Your task to perform on an android device: Do I have any events today? Image 0: 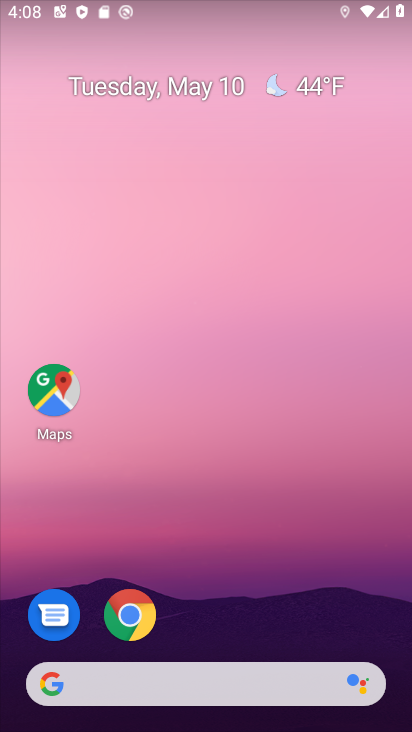
Step 0: drag from (212, 726) to (216, 182)
Your task to perform on an android device: Do I have any events today? Image 1: 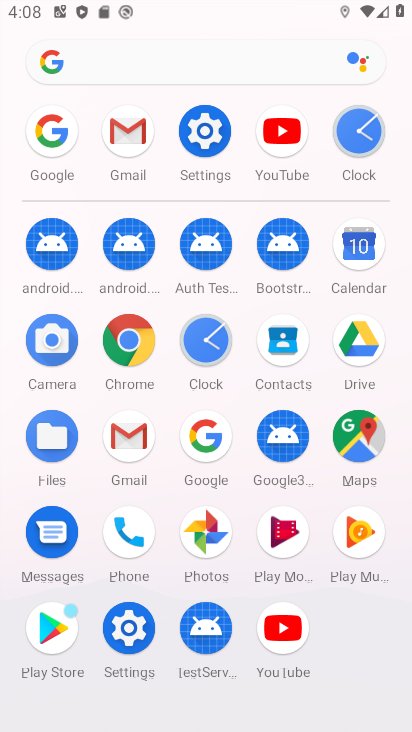
Step 1: click (362, 249)
Your task to perform on an android device: Do I have any events today? Image 2: 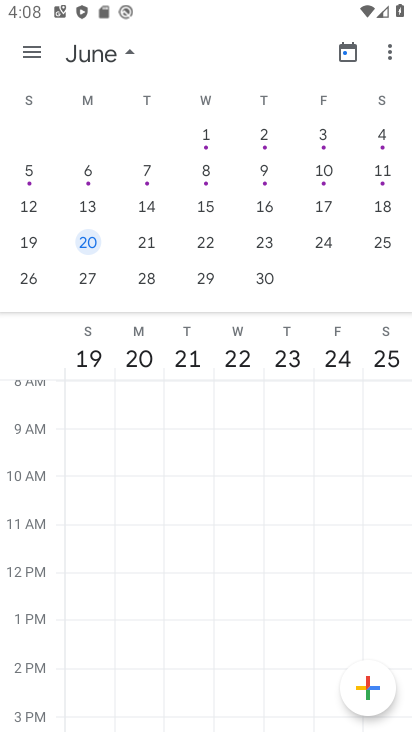
Step 2: drag from (39, 198) to (366, 177)
Your task to perform on an android device: Do I have any events today? Image 3: 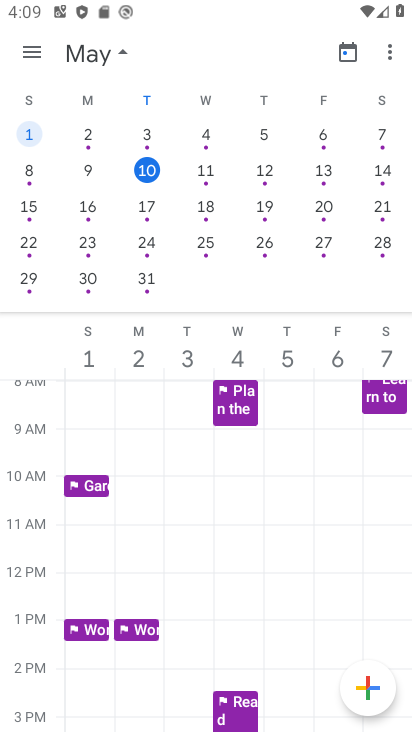
Step 3: click (145, 164)
Your task to perform on an android device: Do I have any events today? Image 4: 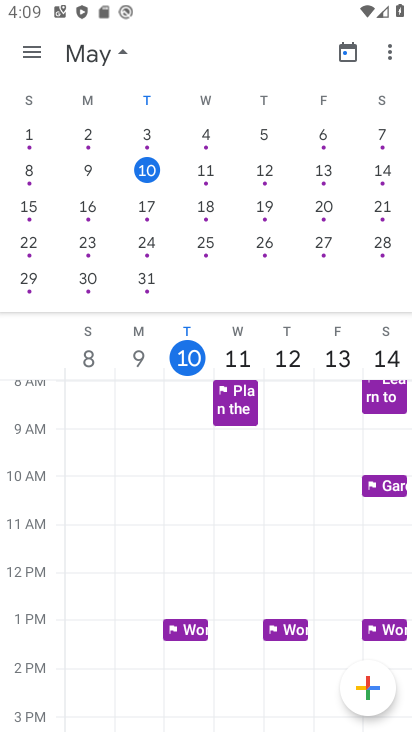
Step 4: click (150, 176)
Your task to perform on an android device: Do I have any events today? Image 5: 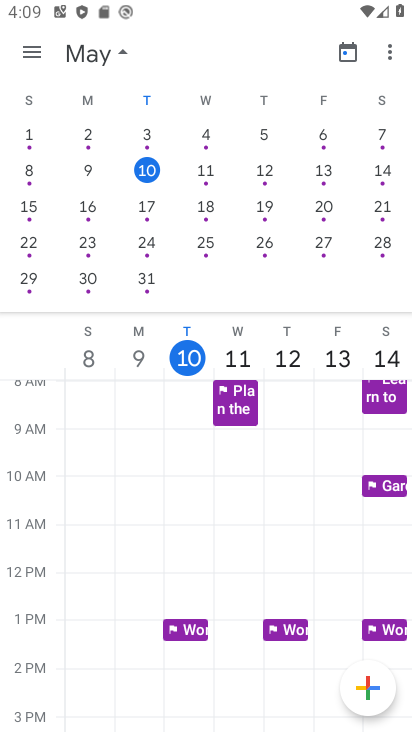
Step 5: click (151, 174)
Your task to perform on an android device: Do I have any events today? Image 6: 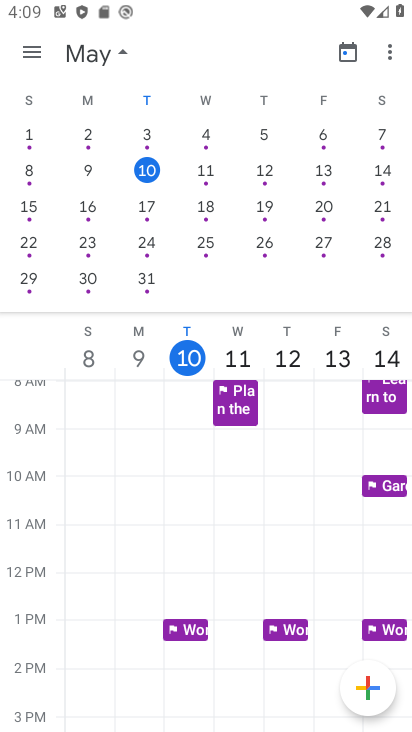
Step 6: click (151, 174)
Your task to perform on an android device: Do I have any events today? Image 7: 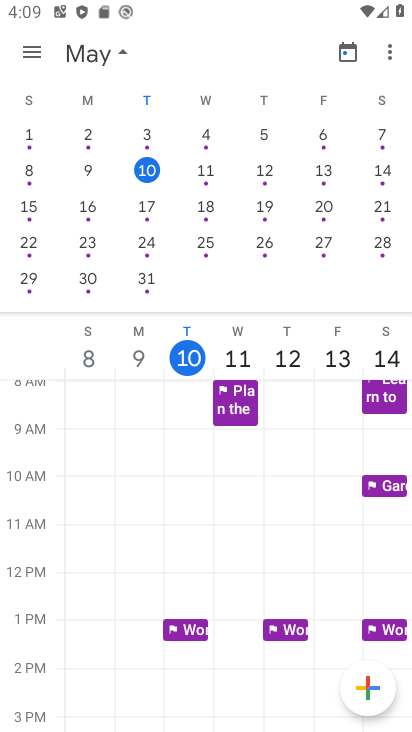
Step 7: click (151, 174)
Your task to perform on an android device: Do I have any events today? Image 8: 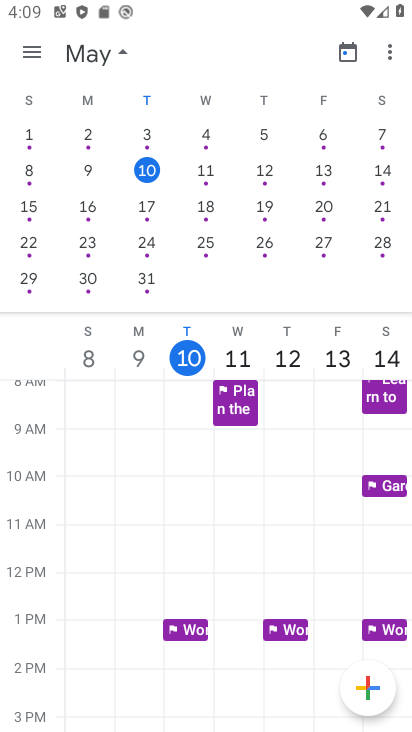
Step 8: click (151, 169)
Your task to perform on an android device: Do I have any events today? Image 9: 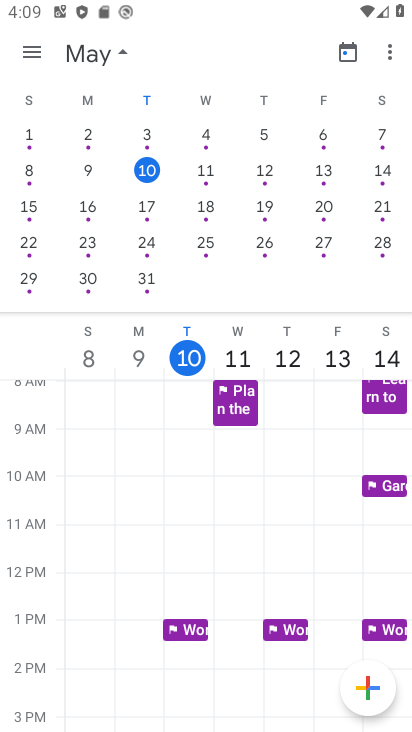
Step 9: click (121, 53)
Your task to perform on an android device: Do I have any events today? Image 10: 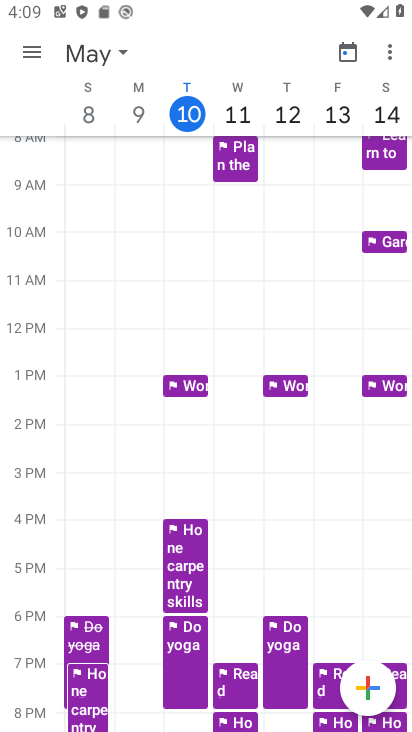
Step 10: task complete